Your task to perform on an android device: Open the calendar app, open the side menu, and click the "Day" option Image 0: 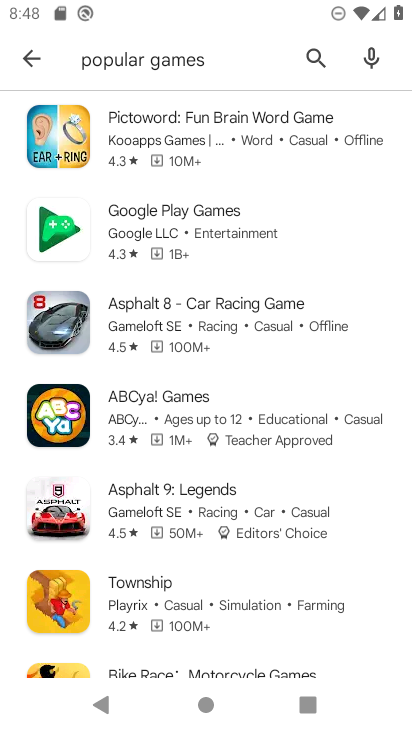
Step 0: press home button
Your task to perform on an android device: Open the calendar app, open the side menu, and click the "Day" option Image 1: 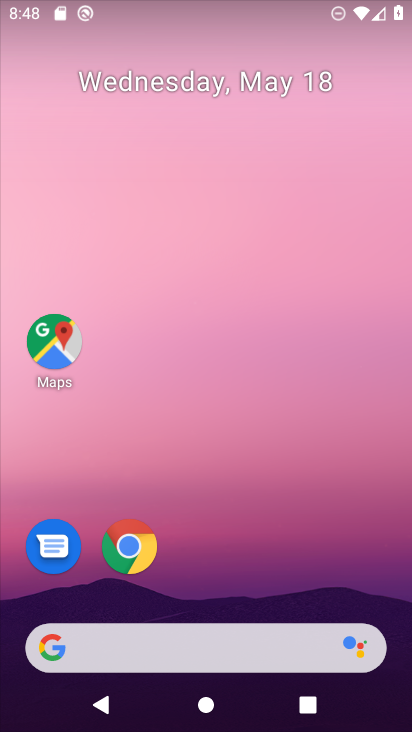
Step 1: drag from (263, 657) to (395, 199)
Your task to perform on an android device: Open the calendar app, open the side menu, and click the "Day" option Image 2: 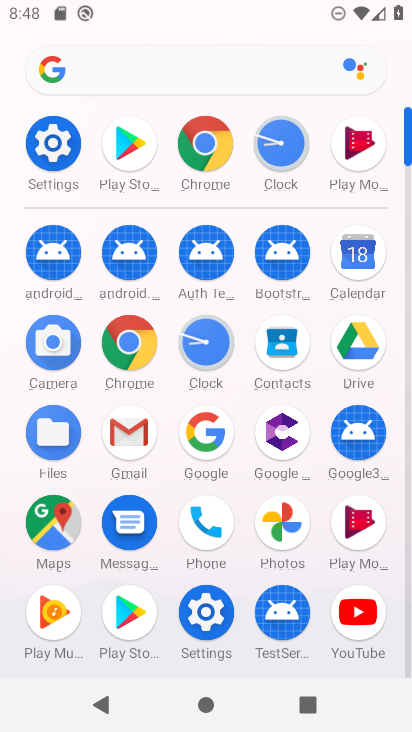
Step 2: drag from (246, 457) to (259, 343)
Your task to perform on an android device: Open the calendar app, open the side menu, and click the "Day" option Image 3: 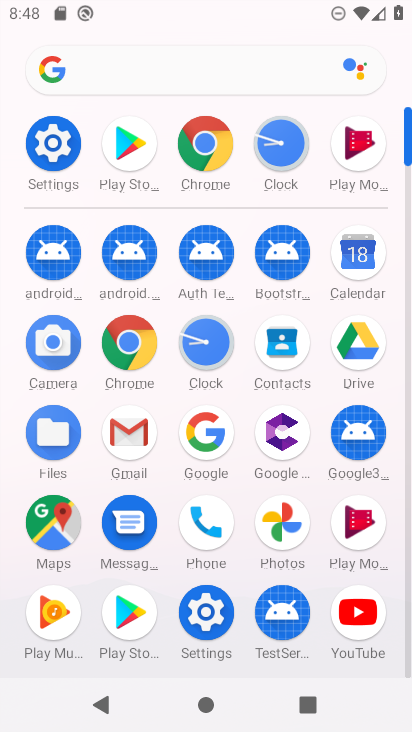
Step 3: click (354, 257)
Your task to perform on an android device: Open the calendar app, open the side menu, and click the "Day" option Image 4: 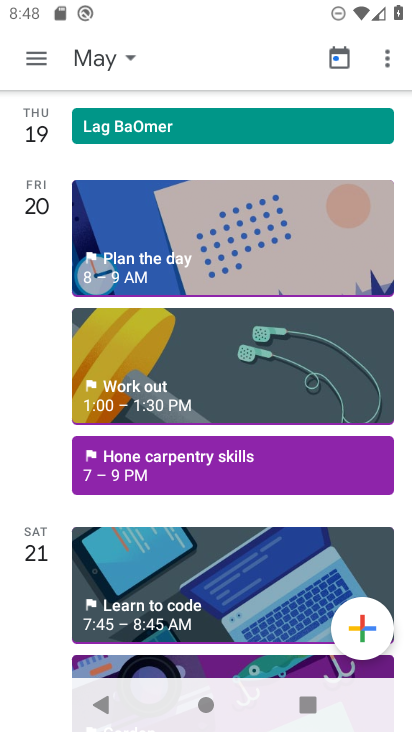
Step 4: click (35, 57)
Your task to perform on an android device: Open the calendar app, open the side menu, and click the "Day" option Image 5: 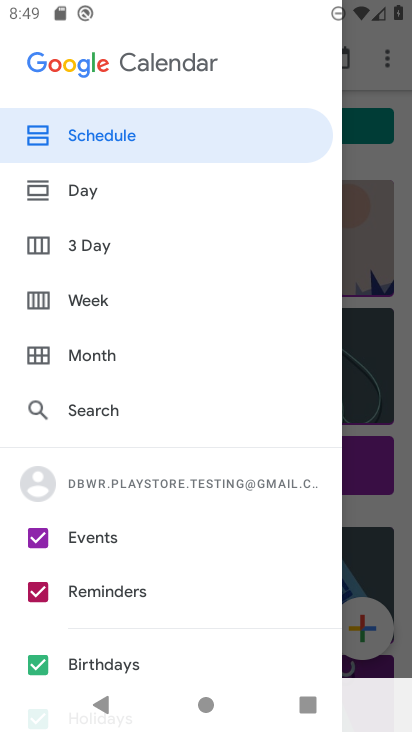
Step 5: click (115, 198)
Your task to perform on an android device: Open the calendar app, open the side menu, and click the "Day" option Image 6: 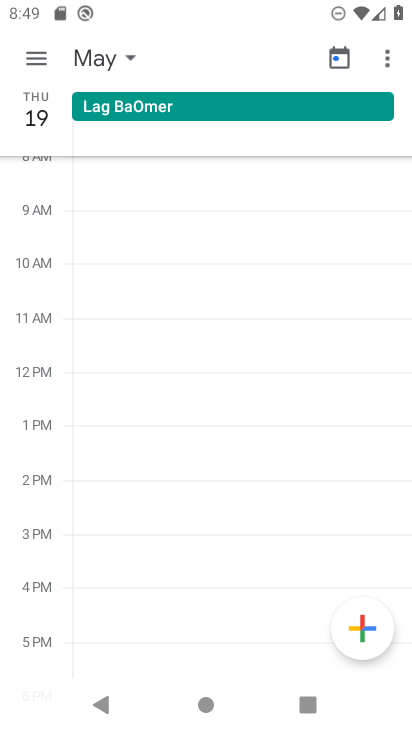
Step 6: task complete